Your task to perform on an android device: Open network settings Image 0: 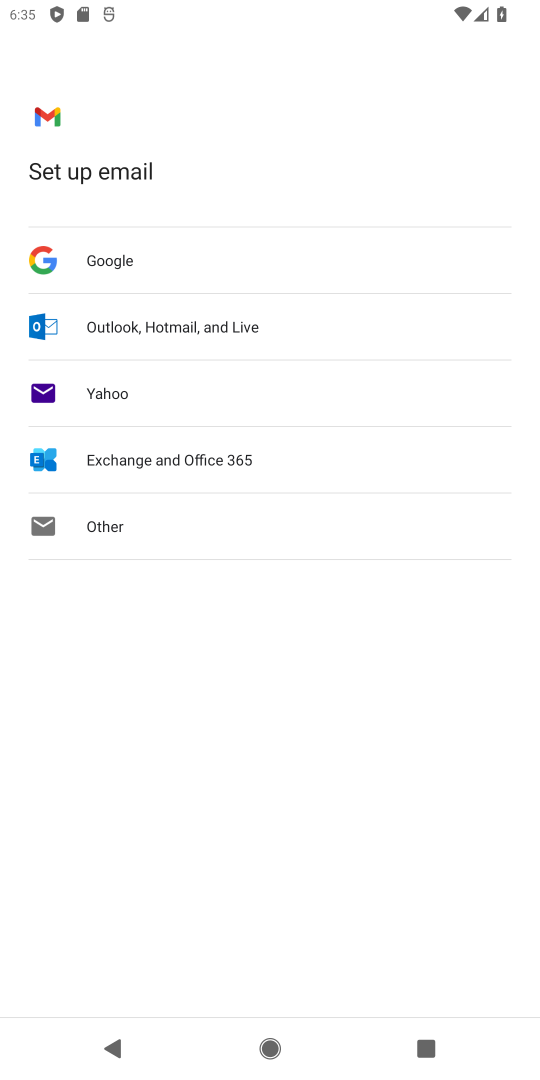
Step 0: press home button
Your task to perform on an android device: Open network settings Image 1: 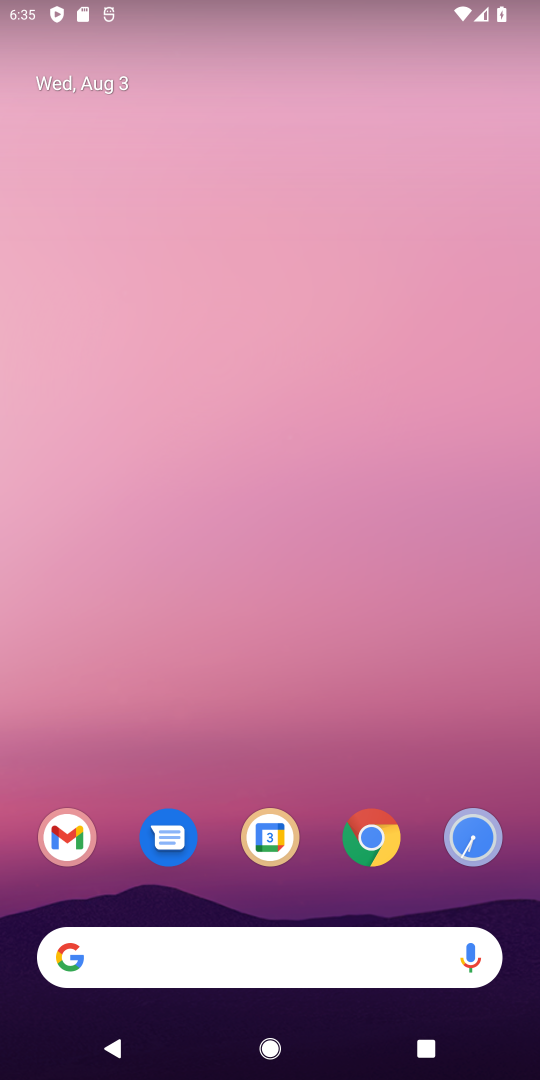
Step 1: drag from (359, 737) to (313, 110)
Your task to perform on an android device: Open network settings Image 2: 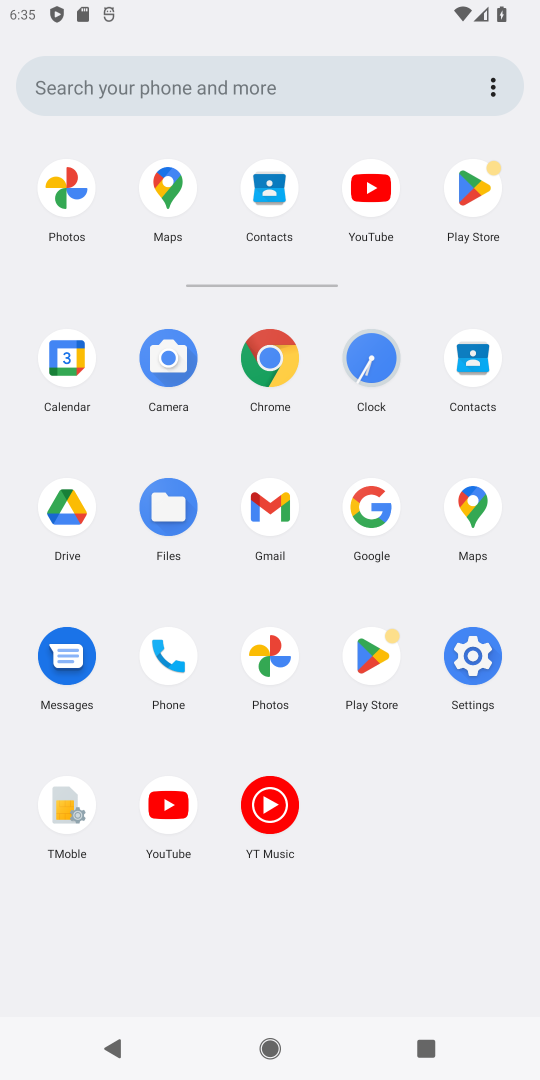
Step 2: click (476, 653)
Your task to perform on an android device: Open network settings Image 3: 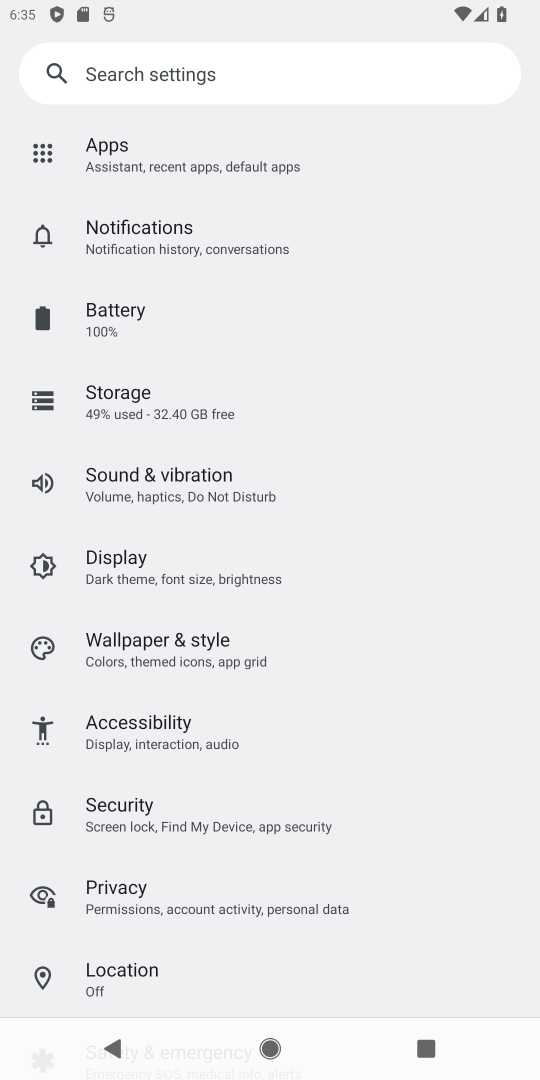
Step 3: drag from (190, 211) to (227, 971)
Your task to perform on an android device: Open network settings Image 4: 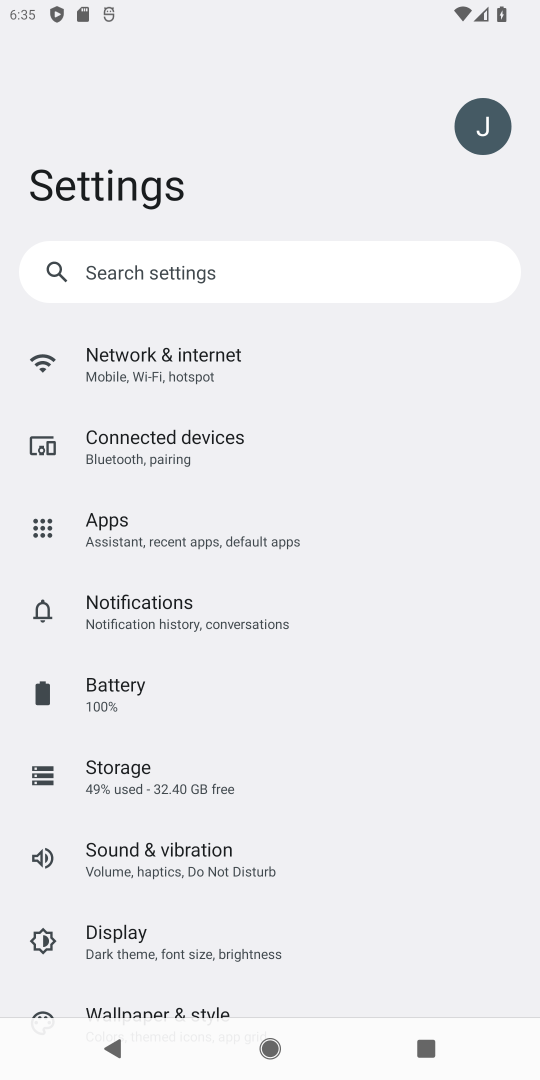
Step 4: click (177, 348)
Your task to perform on an android device: Open network settings Image 5: 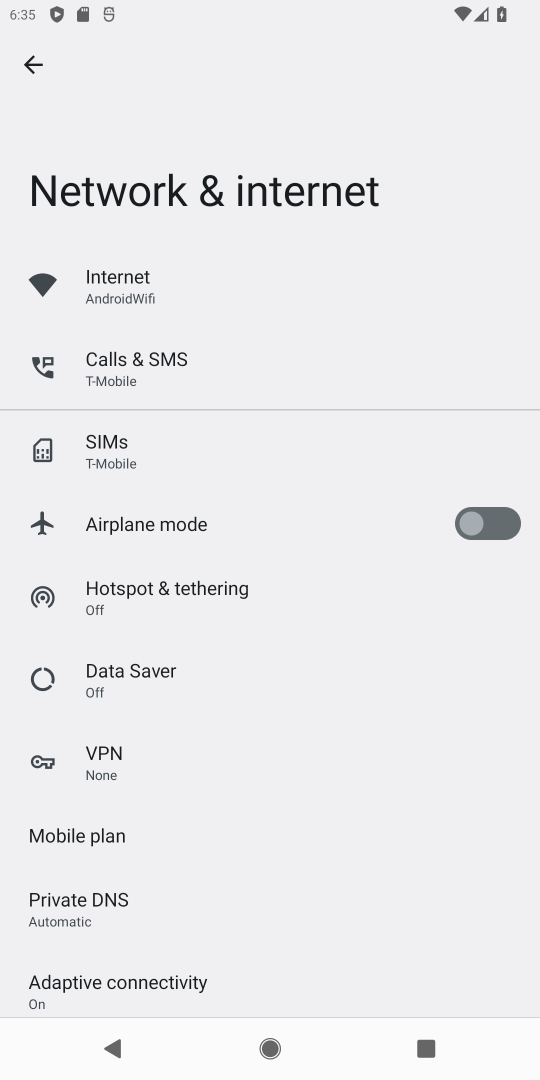
Step 5: task complete